Your task to perform on an android device: Open sound settings Image 0: 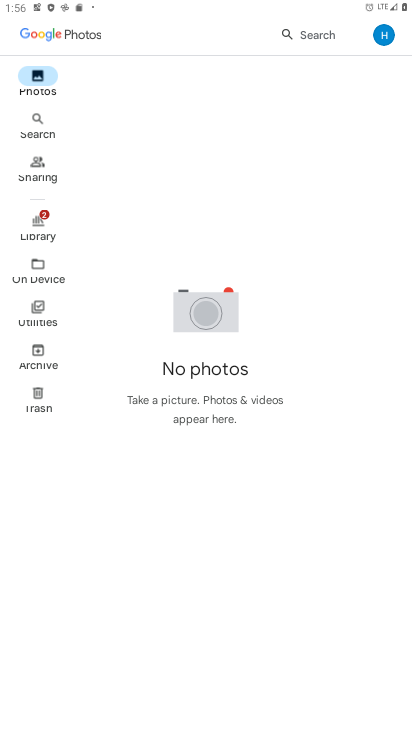
Step 0: press home button
Your task to perform on an android device: Open sound settings Image 1: 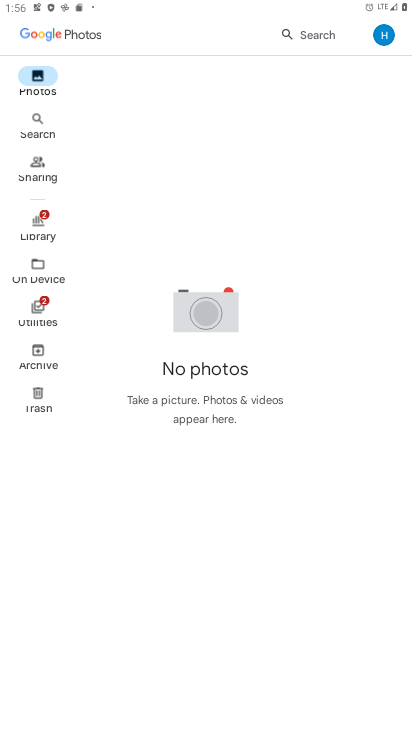
Step 1: press home button
Your task to perform on an android device: Open sound settings Image 2: 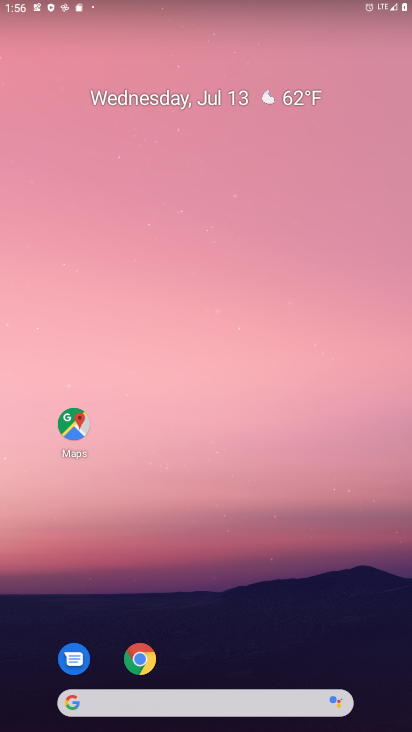
Step 2: drag from (223, 709) to (232, 66)
Your task to perform on an android device: Open sound settings Image 3: 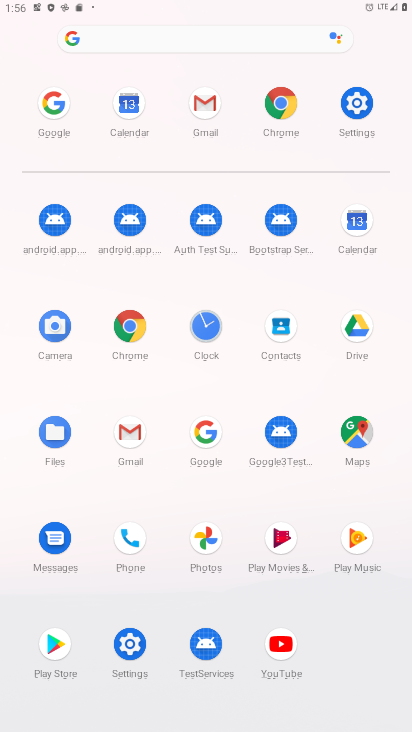
Step 3: click (365, 102)
Your task to perform on an android device: Open sound settings Image 4: 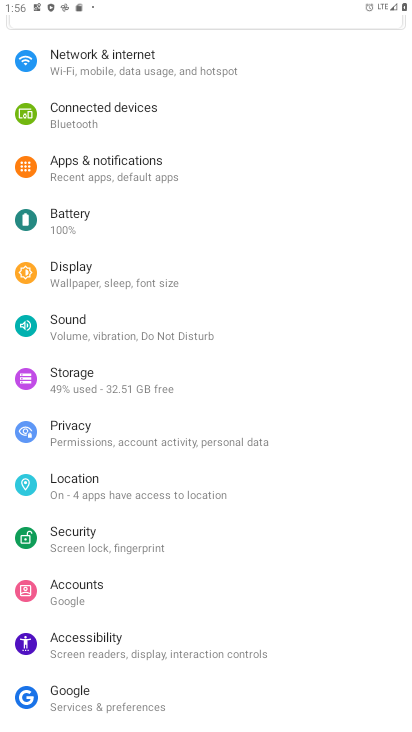
Step 4: click (78, 326)
Your task to perform on an android device: Open sound settings Image 5: 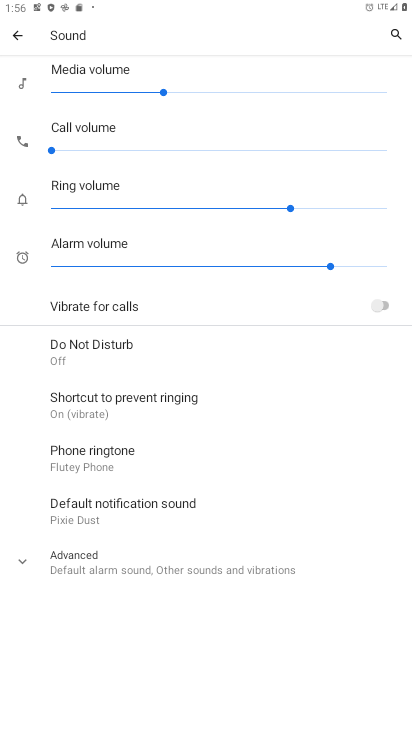
Step 5: task complete